Your task to perform on an android device: turn on bluetooth scan Image 0: 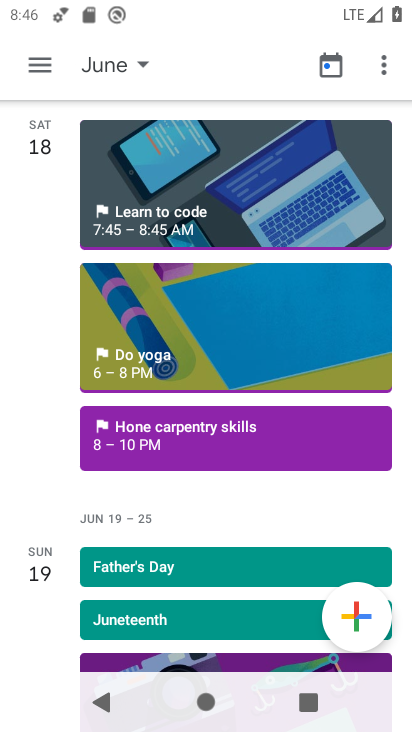
Step 0: press home button
Your task to perform on an android device: turn on bluetooth scan Image 1: 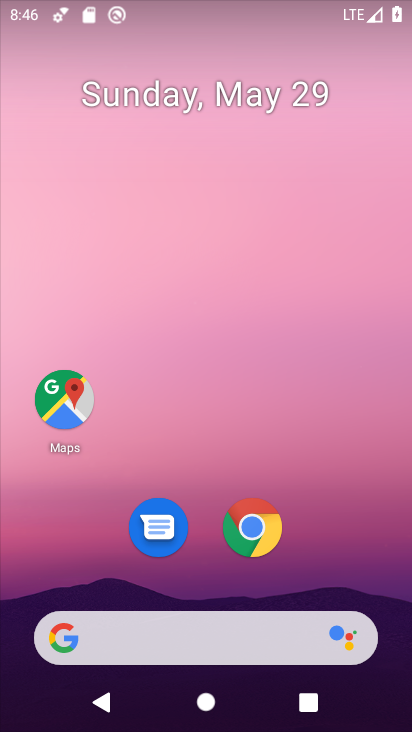
Step 1: drag from (202, 581) to (223, 0)
Your task to perform on an android device: turn on bluetooth scan Image 2: 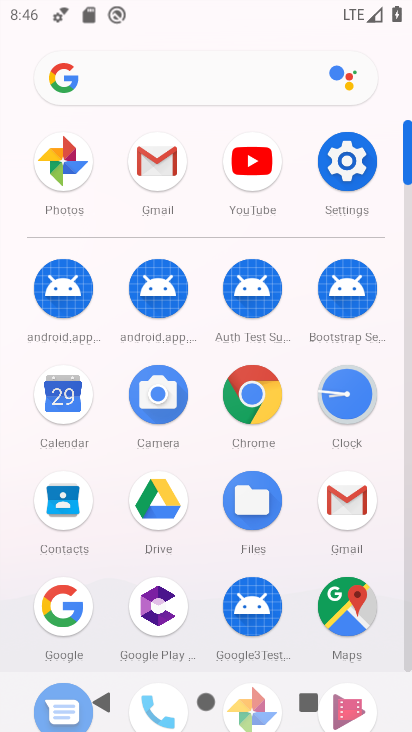
Step 2: click (343, 156)
Your task to perform on an android device: turn on bluetooth scan Image 3: 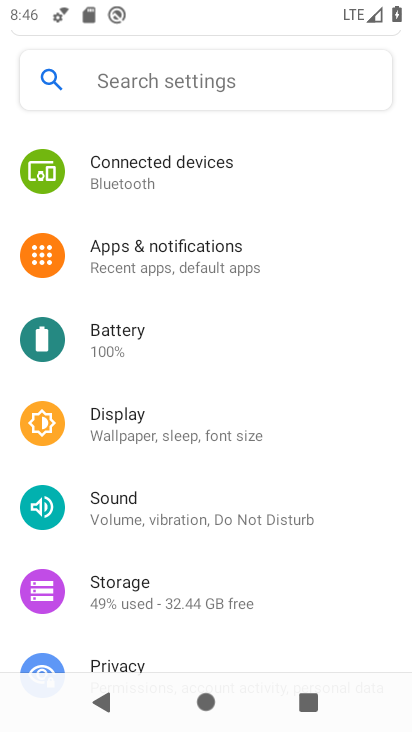
Step 3: drag from (205, 635) to (200, 136)
Your task to perform on an android device: turn on bluetooth scan Image 4: 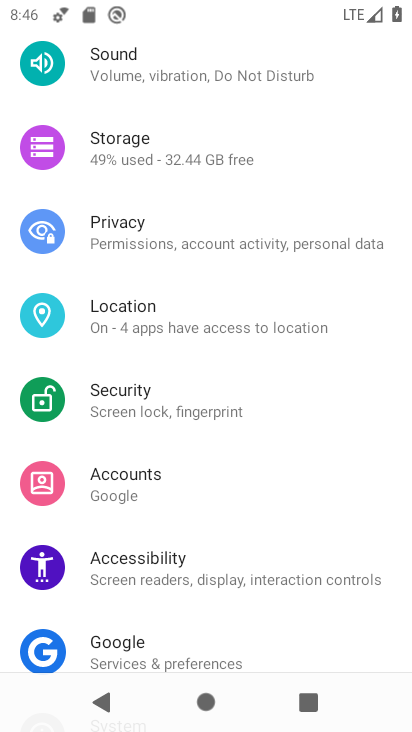
Step 4: click (186, 311)
Your task to perform on an android device: turn on bluetooth scan Image 5: 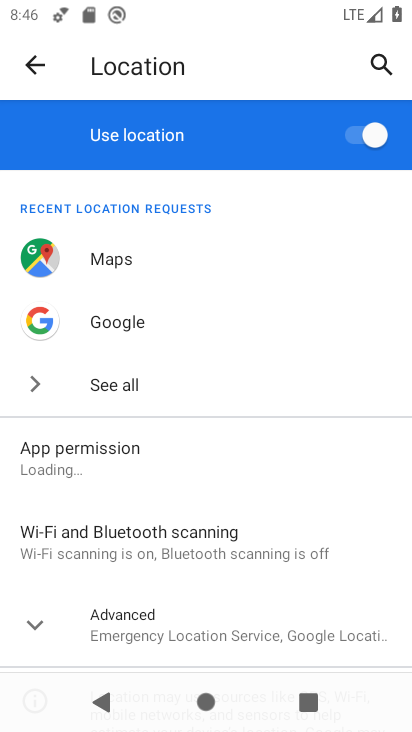
Step 5: click (260, 525)
Your task to perform on an android device: turn on bluetooth scan Image 6: 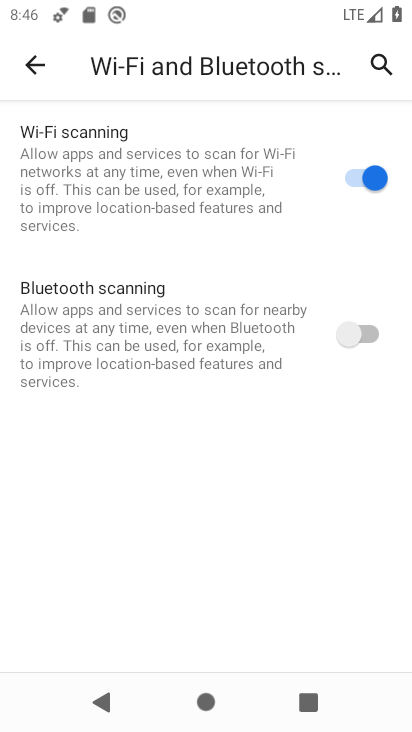
Step 6: click (369, 330)
Your task to perform on an android device: turn on bluetooth scan Image 7: 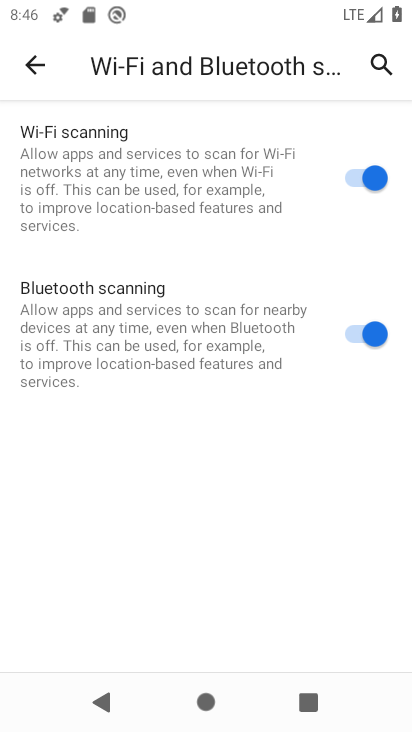
Step 7: task complete